Your task to perform on an android device: Open calendar and show me the third week of next month Image 0: 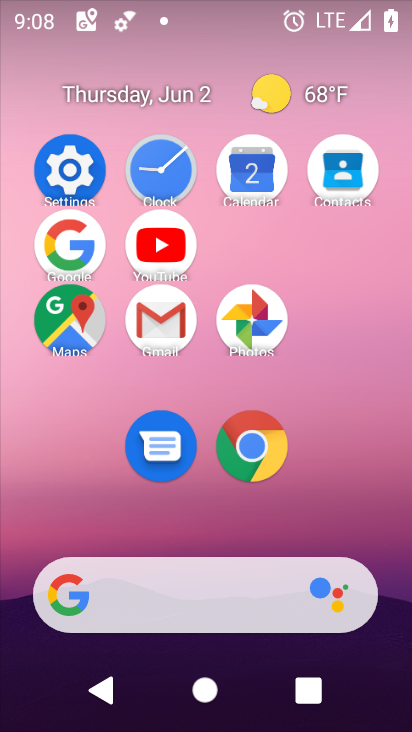
Step 0: click (265, 175)
Your task to perform on an android device: Open calendar and show me the third week of next month Image 1: 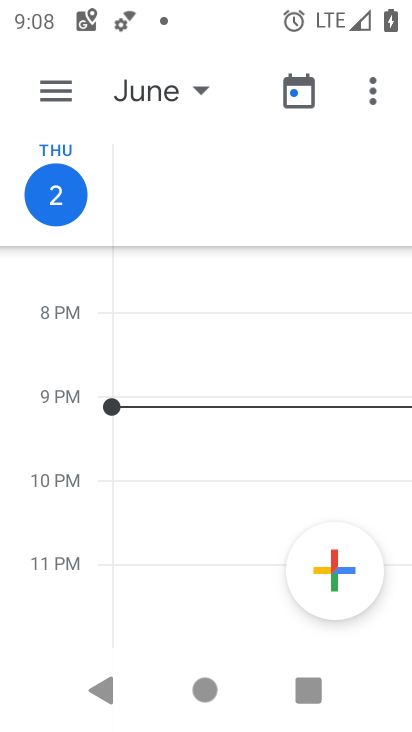
Step 1: click (73, 87)
Your task to perform on an android device: Open calendar and show me the third week of next month Image 2: 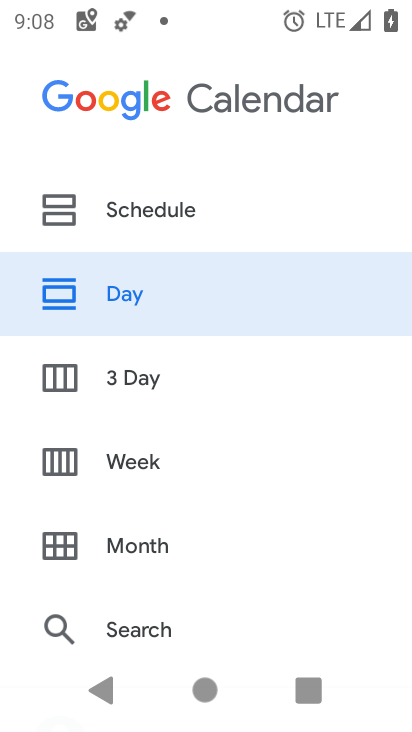
Step 2: click (192, 470)
Your task to perform on an android device: Open calendar and show me the third week of next month Image 3: 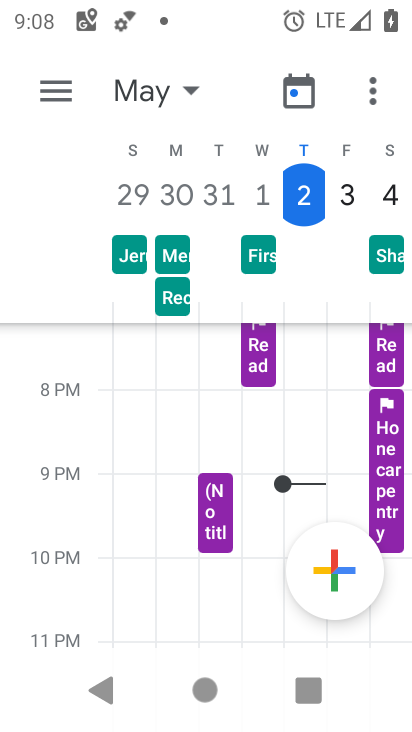
Step 3: task complete